Your task to perform on an android device: choose inbox layout in the gmail app Image 0: 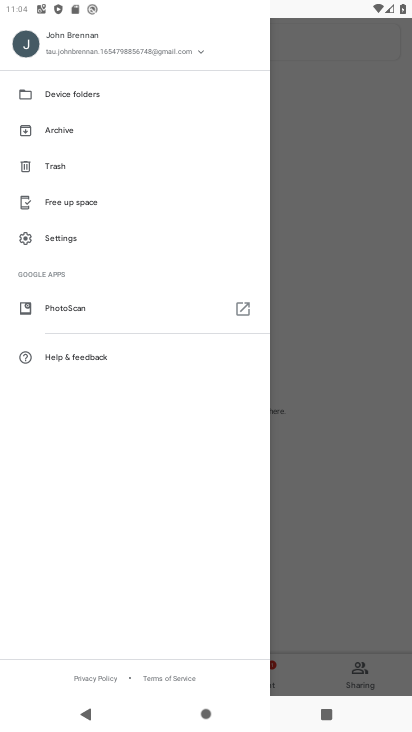
Step 0: press home button
Your task to perform on an android device: choose inbox layout in the gmail app Image 1: 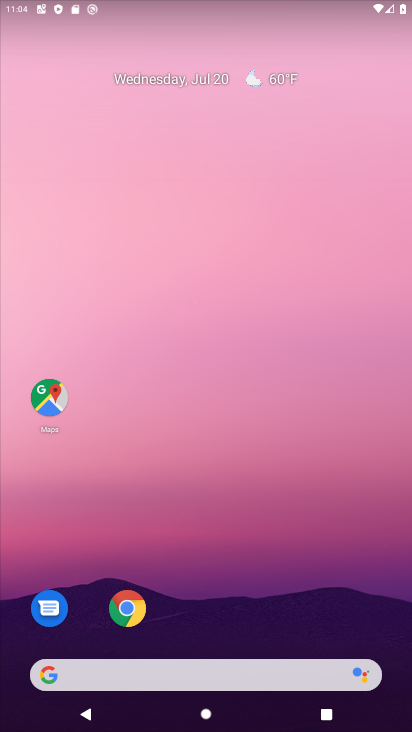
Step 1: drag from (304, 574) to (229, 17)
Your task to perform on an android device: choose inbox layout in the gmail app Image 2: 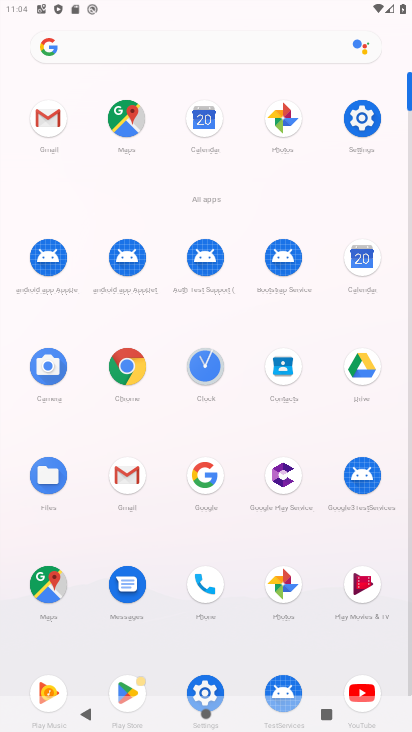
Step 2: click (43, 112)
Your task to perform on an android device: choose inbox layout in the gmail app Image 3: 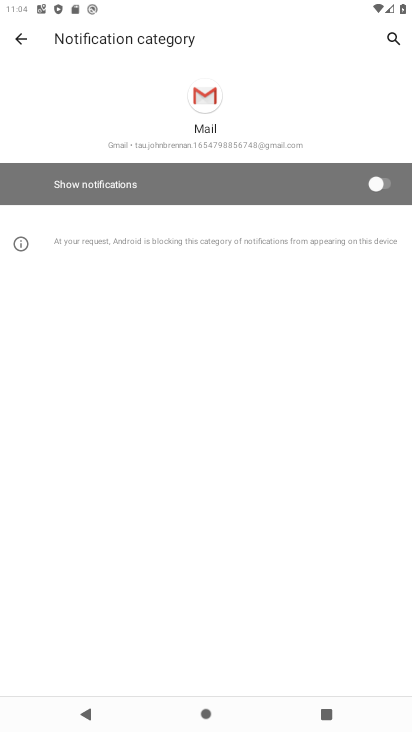
Step 3: click (22, 38)
Your task to perform on an android device: choose inbox layout in the gmail app Image 4: 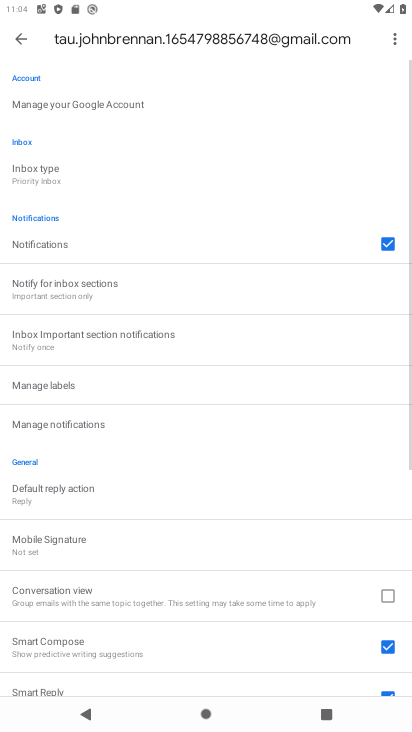
Step 4: click (40, 177)
Your task to perform on an android device: choose inbox layout in the gmail app Image 5: 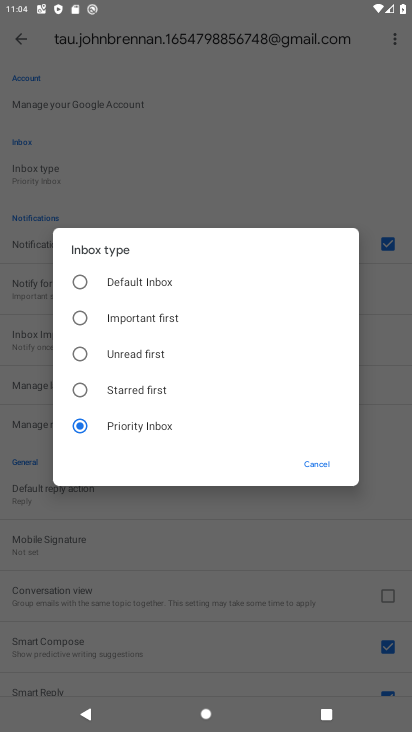
Step 5: click (114, 275)
Your task to perform on an android device: choose inbox layout in the gmail app Image 6: 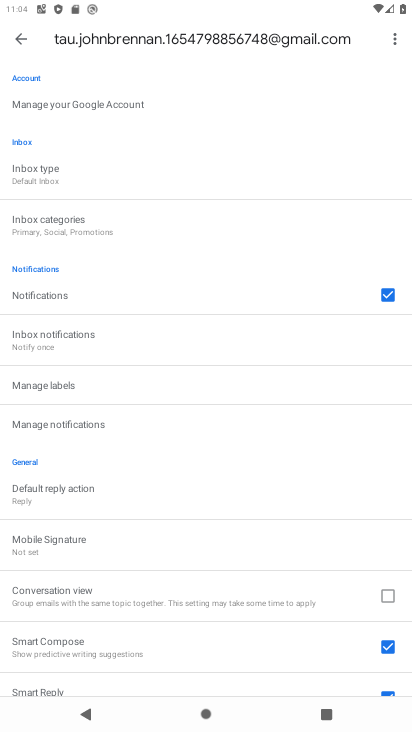
Step 6: task complete